Your task to perform on an android device: Open the phone app and click the voicemail tab. Image 0: 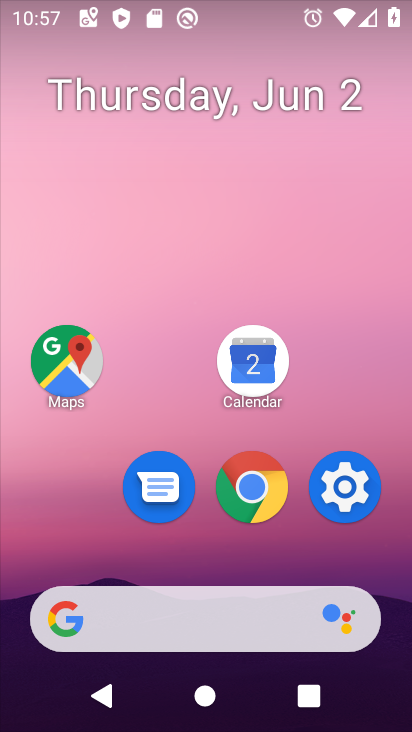
Step 0: drag from (287, 666) to (166, 117)
Your task to perform on an android device: Open the phone app and click the voicemail tab. Image 1: 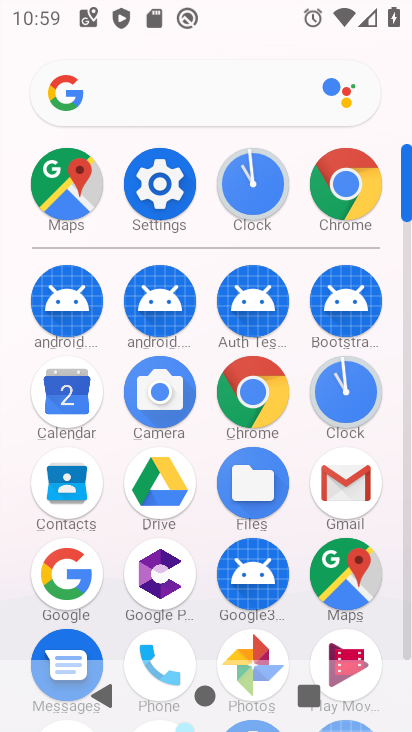
Step 1: click (162, 632)
Your task to perform on an android device: Open the phone app and click the voicemail tab. Image 2: 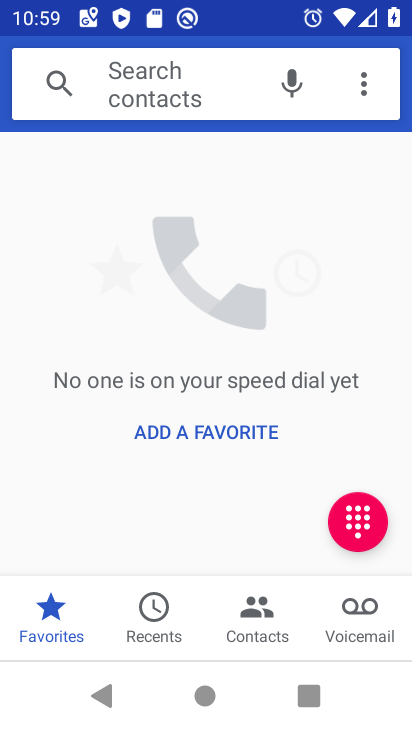
Step 2: click (333, 634)
Your task to perform on an android device: Open the phone app and click the voicemail tab. Image 3: 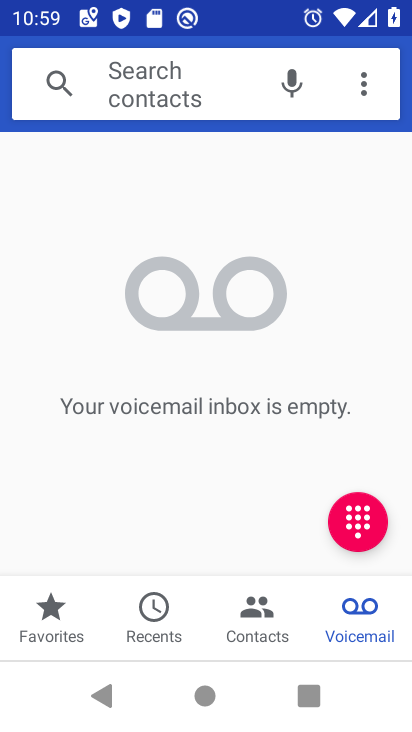
Step 3: task complete